Your task to perform on an android device: Find coffee shops on Maps Image 0: 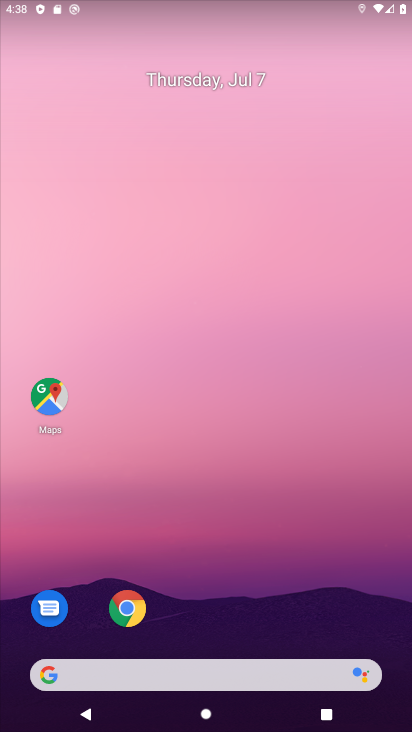
Step 0: drag from (157, 652) to (230, 83)
Your task to perform on an android device: Find coffee shops on Maps Image 1: 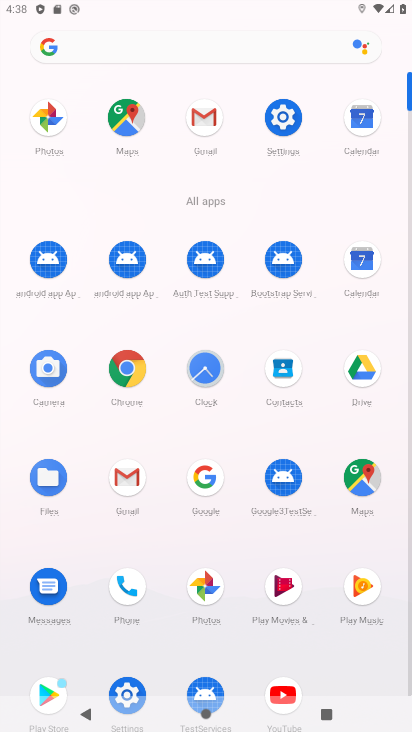
Step 1: click (355, 470)
Your task to perform on an android device: Find coffee shops on Maps Image 2: 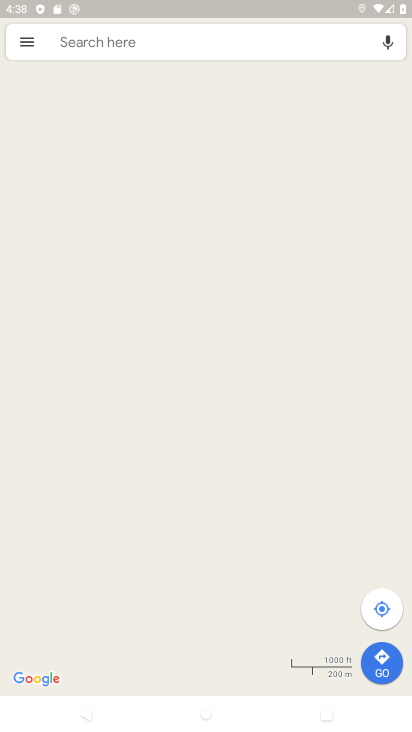
Step 2: click (95, 42)
Your task to perform on an android device: Find coffee shops on Maps Image 3: 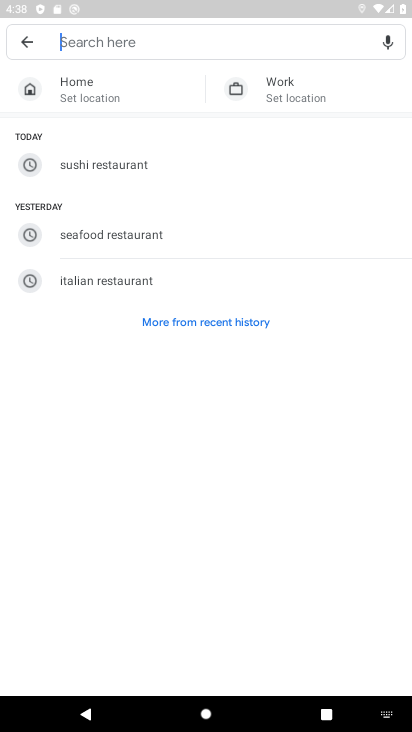
Step 3: type "Coffee shops"
Your task to perform on an android device: Find coffee shops on Maps Image 4: 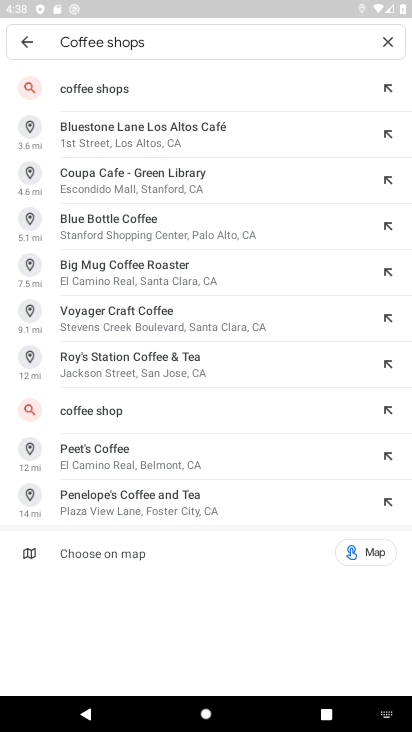
Step 4: click (108, 84)
Your task to perform on an android device: Find coffee shops on Maps Image 5: 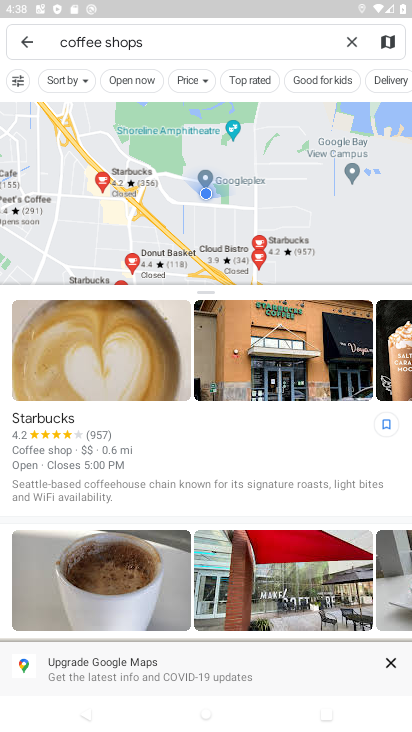
Step 5: task complete